Your task to perform on an android device: Go to eBay Image 0: 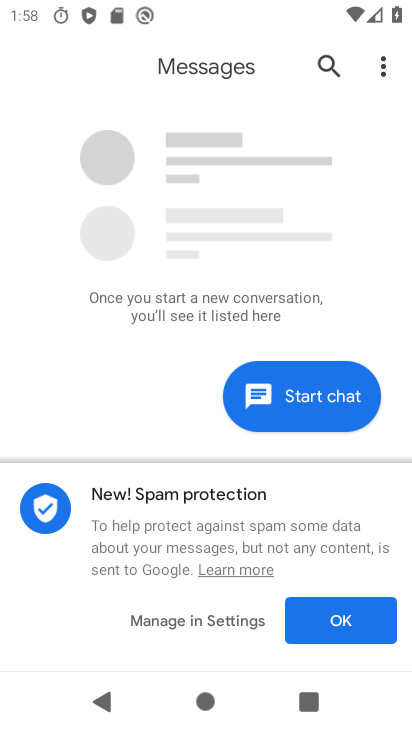
Step 0: press home button
Your task to perform on an android device: Go to eBay Image 1: 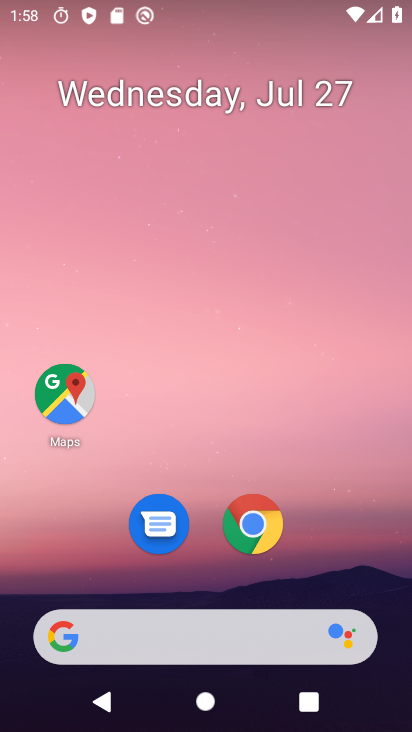
Step 1: click (172, 645)
Your task to perform on an android device: Go to eBay Image 2: 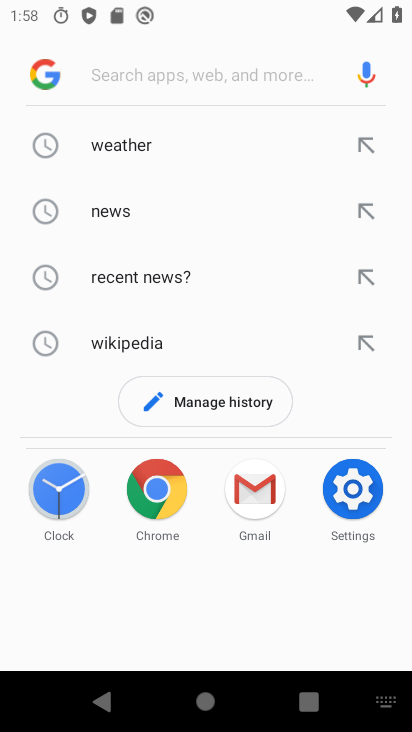
Step 2: type "ebay"
Your task to perform on an android device: Go to eBay Image 3: 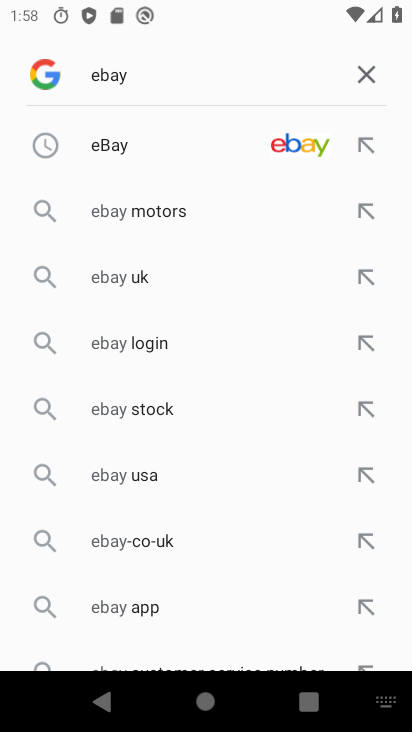
Step 3: click (278, 139)
Your task to perform on an android device: Go to eBay Image 4: 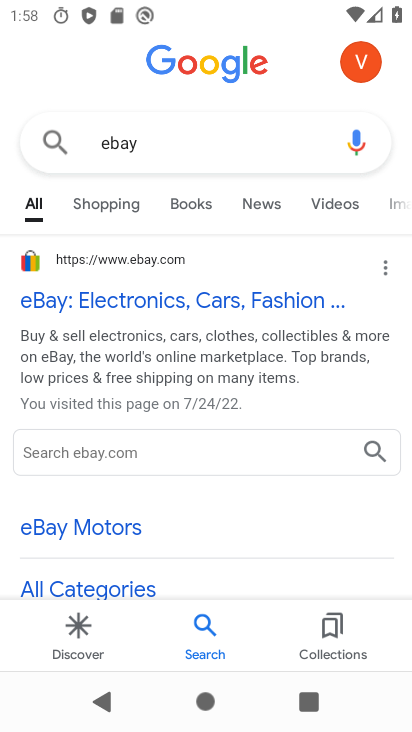
Step 4: click (55, 301)
Your task to perform on an android device: Go to eBay Image 5: 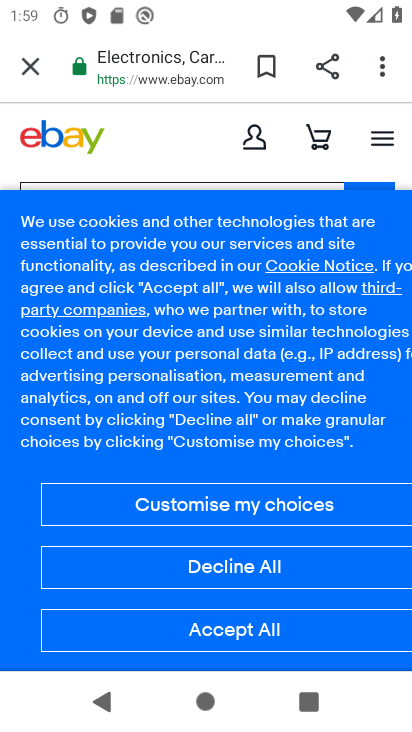
Step 5: click (271, 625)
Your task to perform on an android device: Go to eBay Image 6: 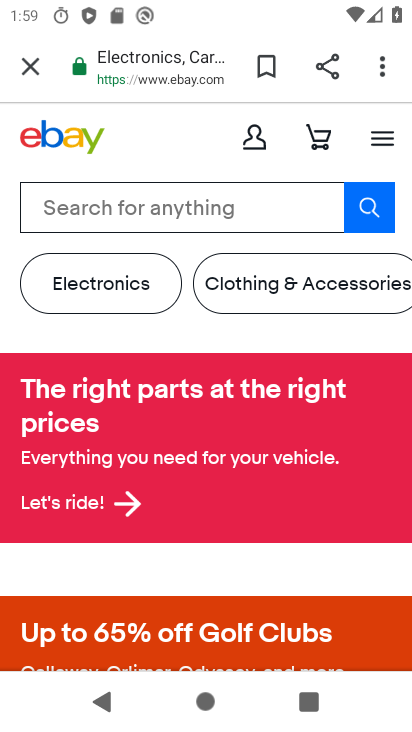
Step 6: task complete